Your task to perform on an android device: Search for Italian restaurants on Maps Image 0: 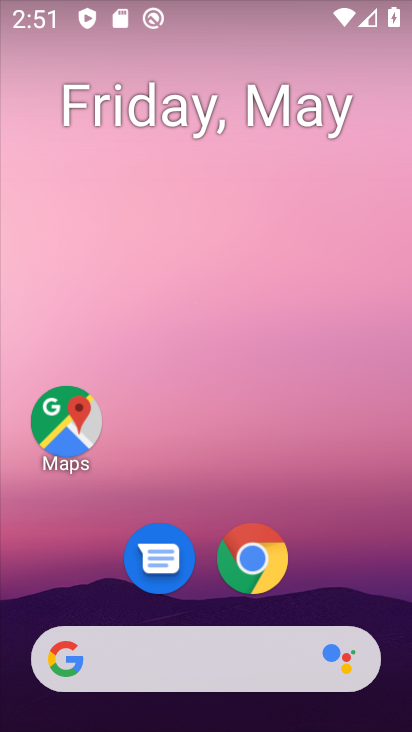
Step 0: click (58, 435)
Your task to perform on an android device: Search for Italian restaurants on Maps Image 1: 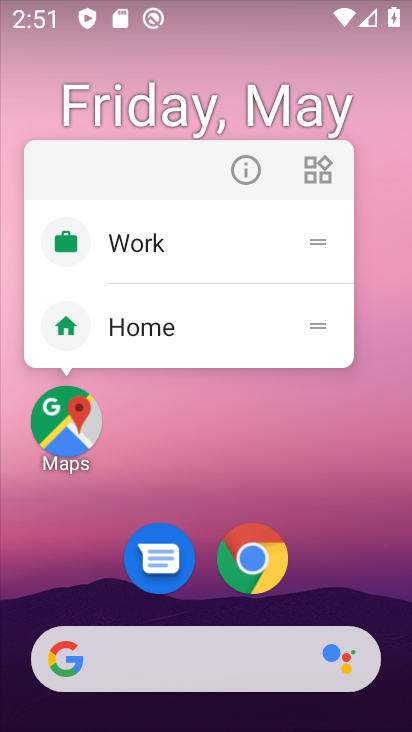
Step 1: click (69, 431)
Your task to perform on an android device: Search for Italian restaurants on Maps Image 2: 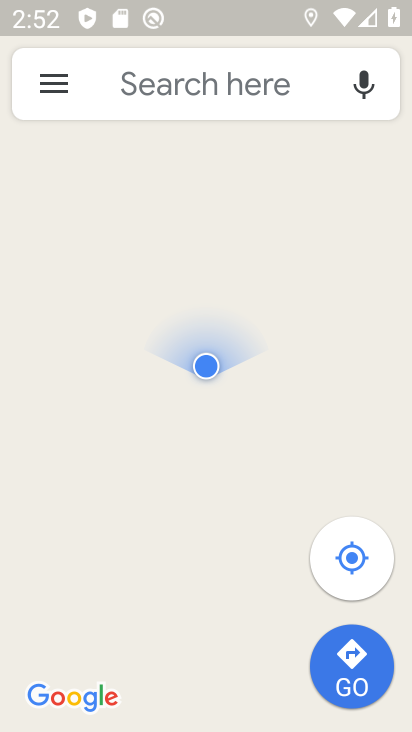
Step 2: click (179, 100)
Your task to perform on an android device: Search for Italian restaurants on Maps Image 3: 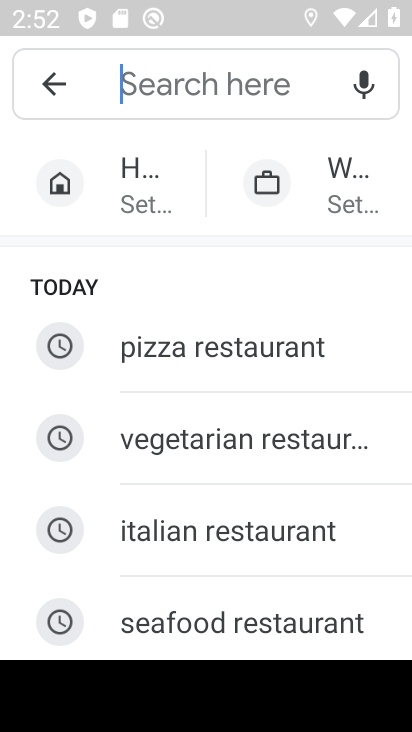
Step 3: type "Italian restaurants "
Your task to perform on an android device: Search for Italian restaurants on Maps Image 4: 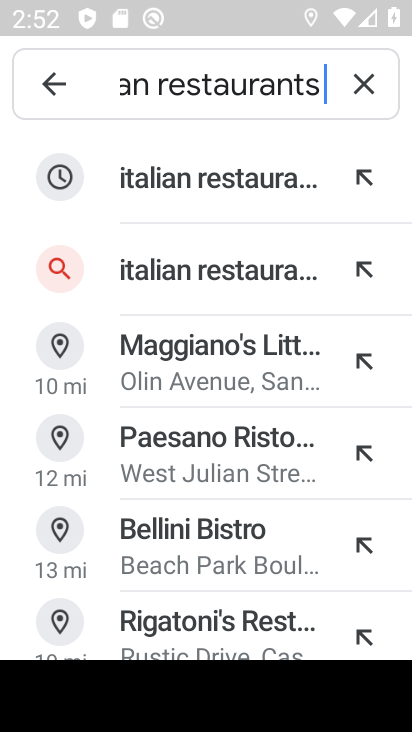
Step 4: click (23, 201)
Your task to perform on an android device: Search for Italian restaurants on Maps Image 5: 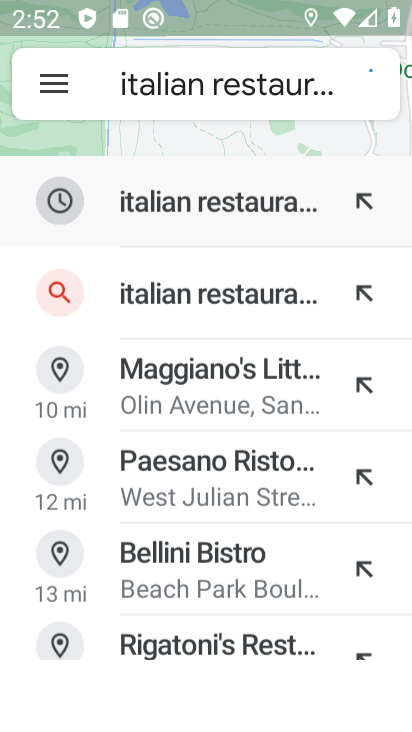
Step 5: click (163, 173)
Your task to perform on an android device: Search for Italian restaurants on Maps Image 6: 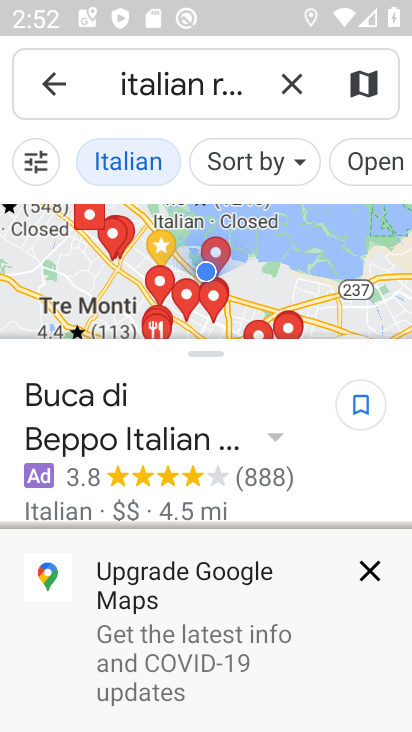
Step 6: click (369, 584)
Your task to perform on an android device: Search for Italian restaurants on Maps Image 7: 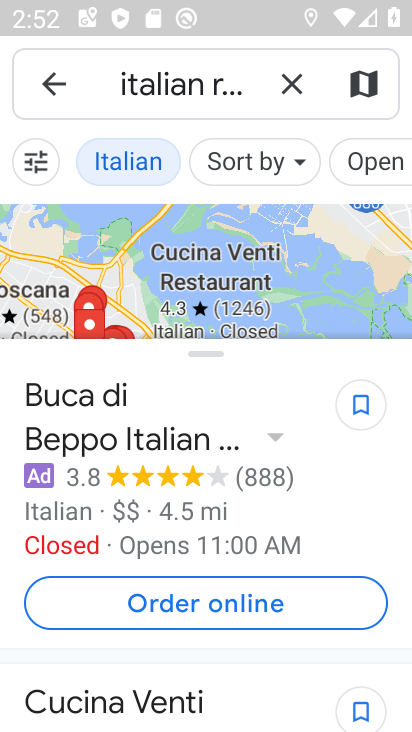
Step 7: task complete